Your task to perform on an android device: empty trash in google photos Image 0: 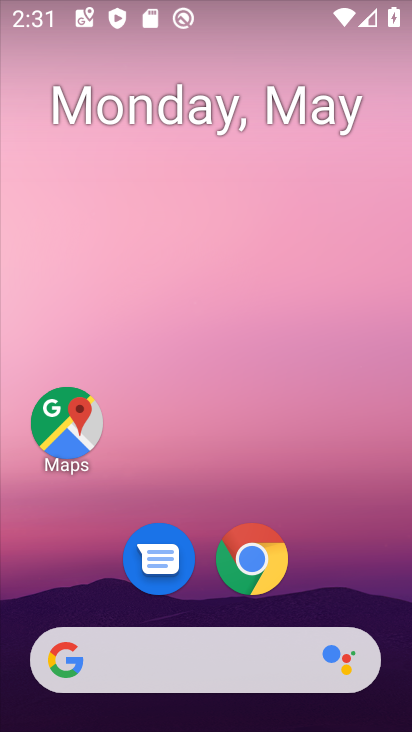
Step 0: drag from (213, 666) to (237, 111)
Your task to perform on an android device: empty trash in google photos Image 1: 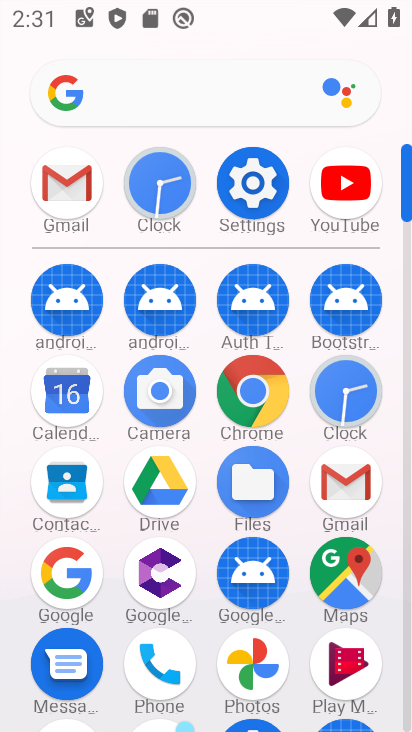
Step 1: click (248, 665)
Your task to perform on an android device: empty trash in google photos Image 2: 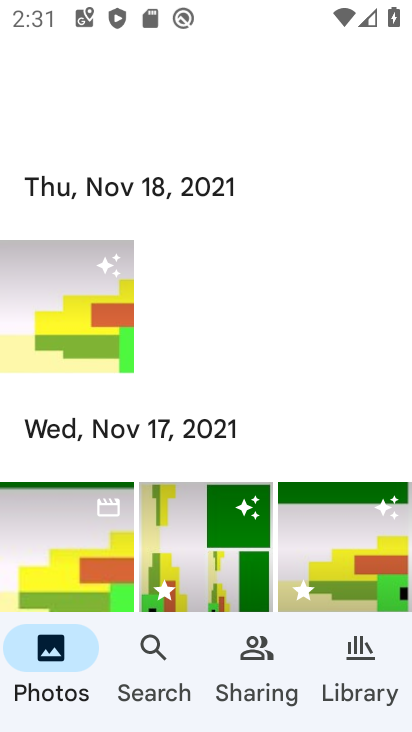
Step 2: click (346, 674)
Your task to perform on an android device: empty trash in google photos Image 3: 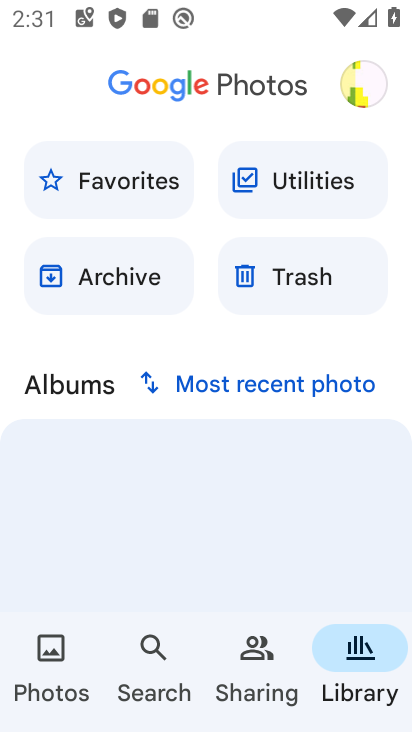
Step 3: click (308, 303)
Your task to perform on an android device: empty trash in google photos Image 4: 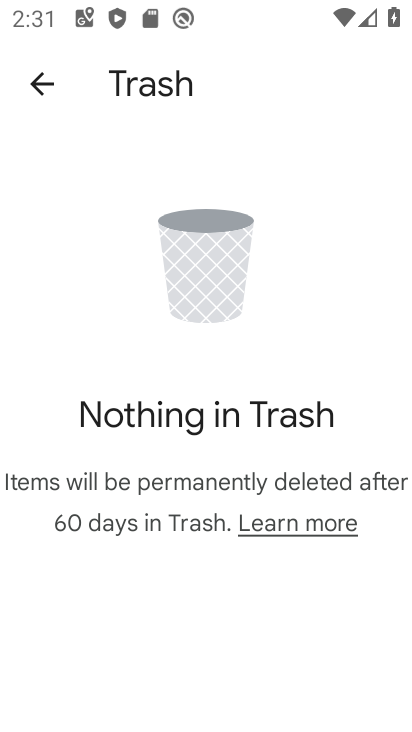
Step 4: task complete